Your task to perform on an android device: Go to Yahoo.com Image 0: 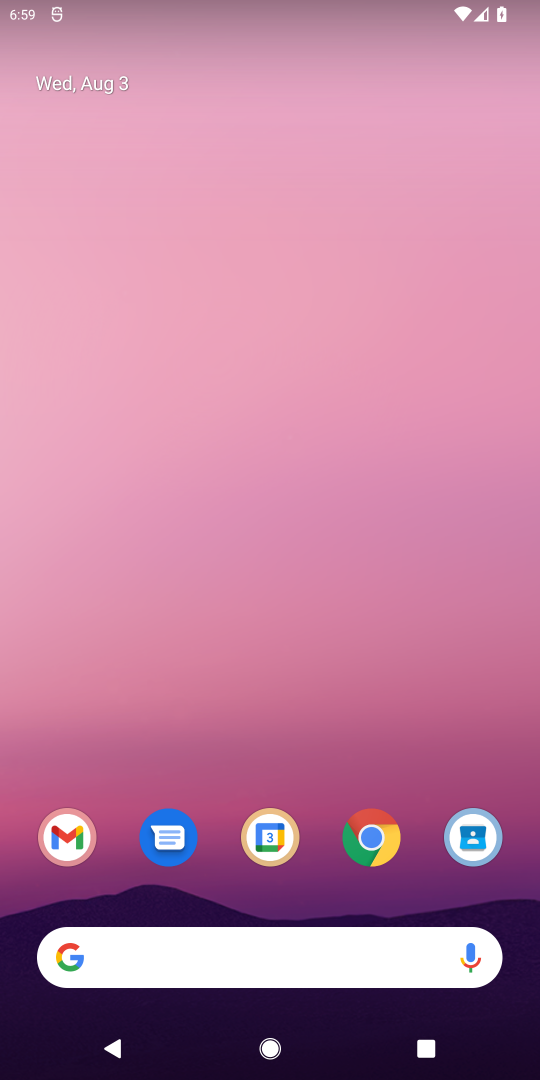
Step 0: press home button
Your task to perform on an android device: Go to Yahoo.com Image 1: 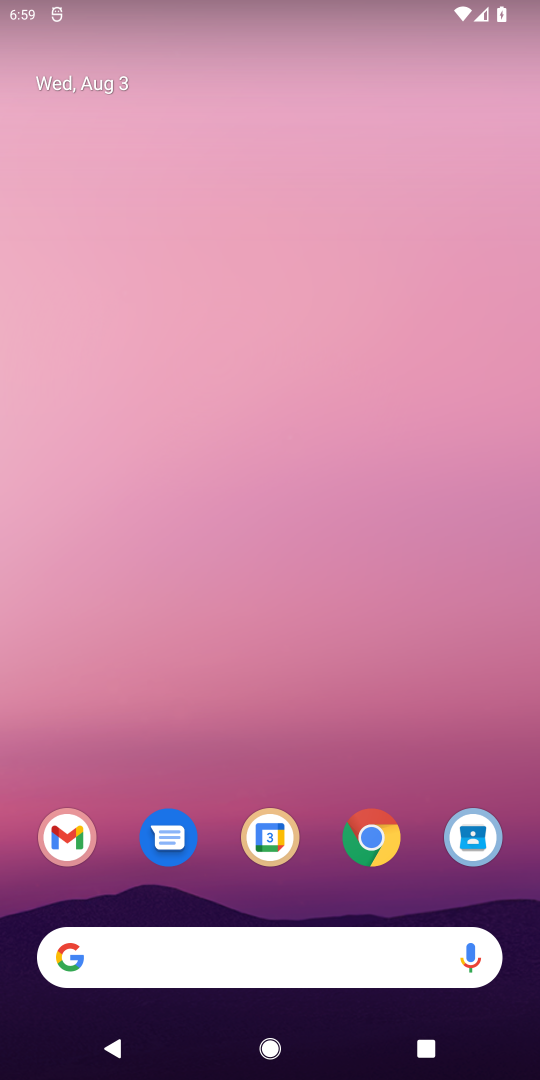
Step 1: click (65, 956)
Your task to perform on an android device: Go to Yahoo.com Image 2: 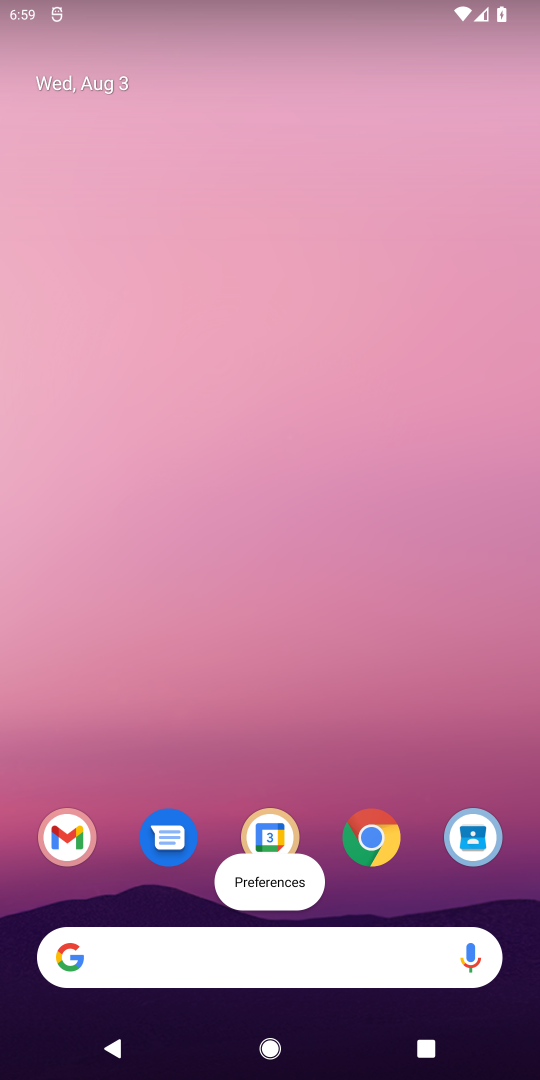
Step 2: click (65, 956)
Your task to perform on an android device: Go to Yahoo.com Image 3: 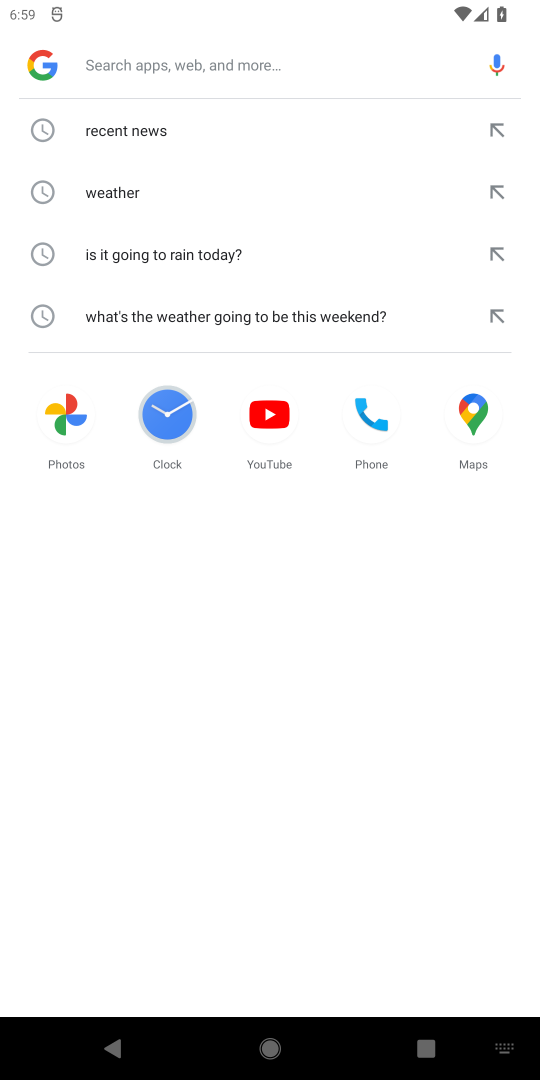
Step 3: type "Yahoo.com"
Your task to perform on an android device: Go to Yahoo.com Image 4: 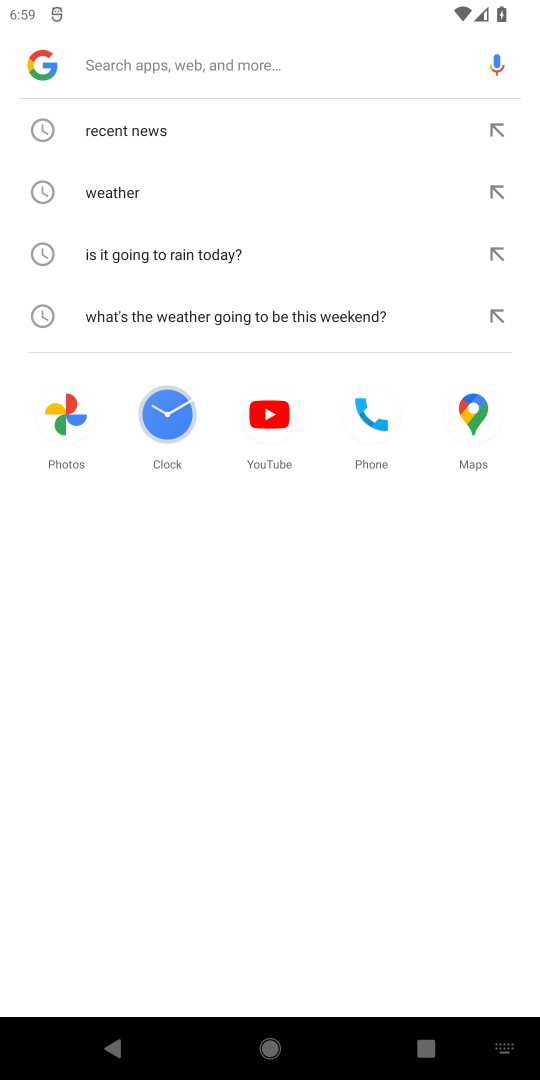
Step 4: click (135, 69)
Your task to perform on an android device: Go to Yahoo.com Image 5: 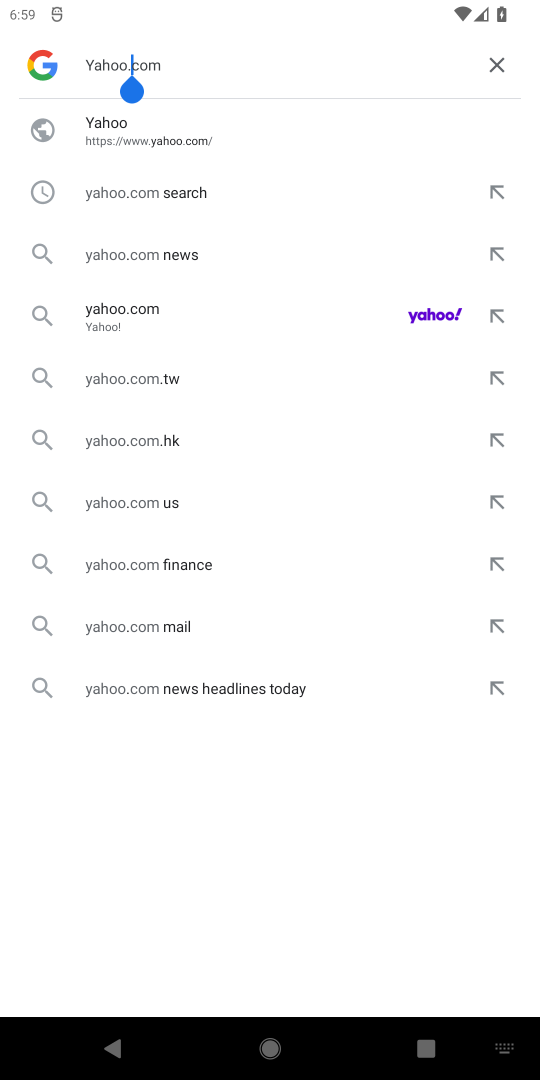
Step 5: click (150, 143)
Your task to perform on an android device: Go to Yahoo.com Image 6: 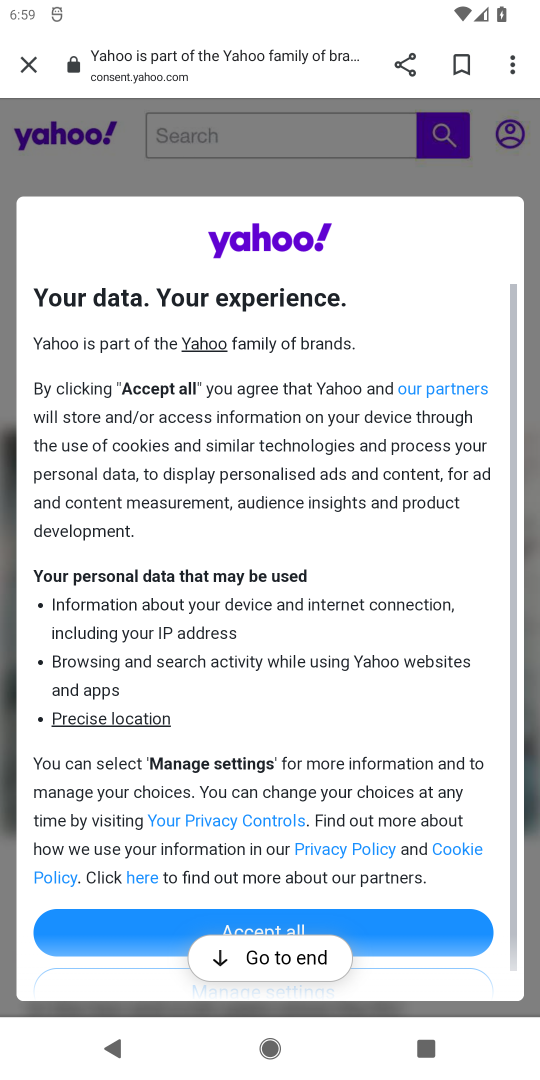
Step 6: click (328, 923)
Your task to perform on an android device: Go to Yahoo.com Image 7: 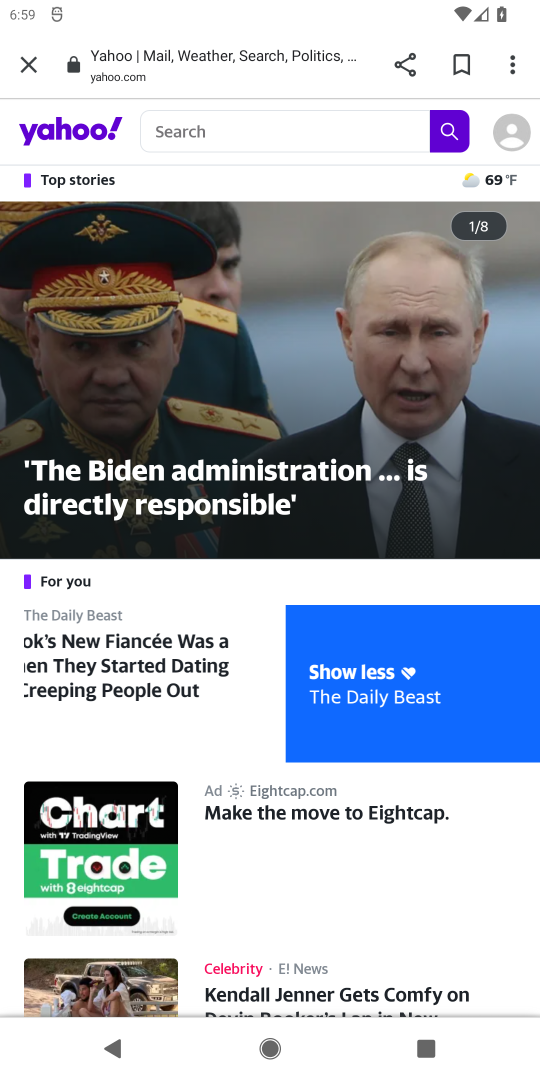
Step 7: task complete